Your task to perform on an android device: remove spam from my inbox in the gmail app Image 0: 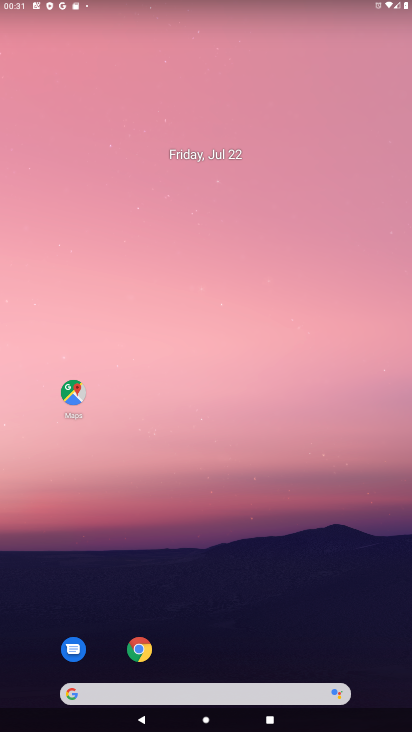
Step 0: drag from (328, 543) to (324, 35)
Your task to perform on an android device: remove spam from my inbox in the gmail app Image 1: 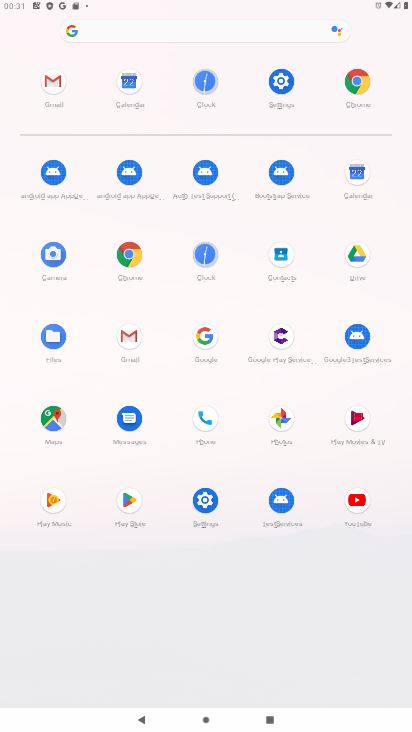
Step 1: click (133, 324)
Your task to perform on an android device: remove spam from my inbox in the gmail app Image 2: 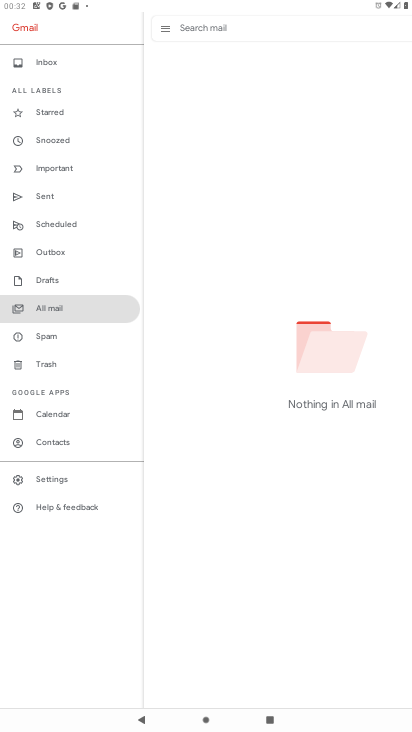
Step 2: click (32, 340)
Your task to perform on an android device: remove spam from my inbox in the gmail app Image 3: 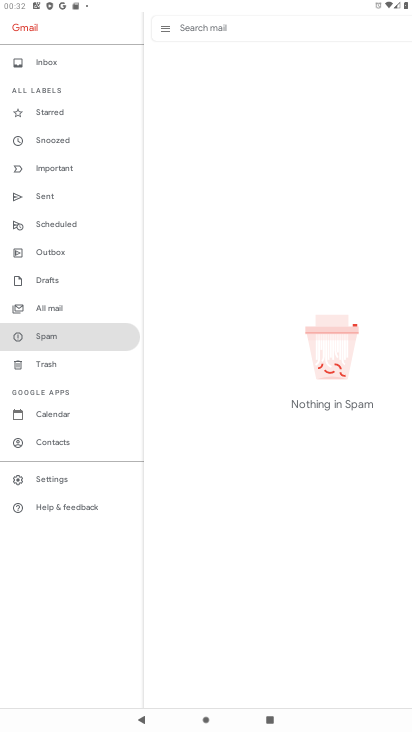
Step 3: task complete